Your task to perform on an android device: turn pop-ups off in chrome Image 0: 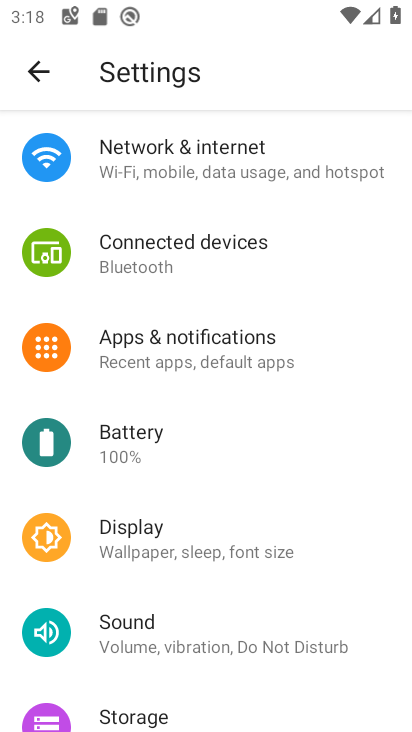
Step 0: drag from (188, 661) to (272, 63)
Your task to perform on an android device: turn pop-ups off in chrome Image 1: 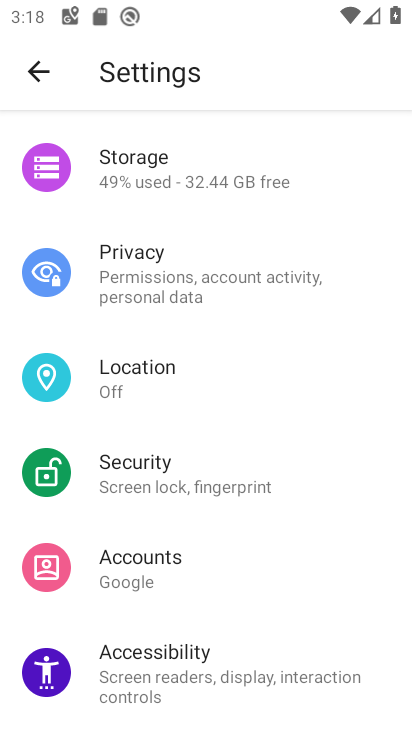
Step 1: drag from (227, 667) to (226, 524)
Your task to perform on an android device: turn pop-ups off in chrome Image 2: 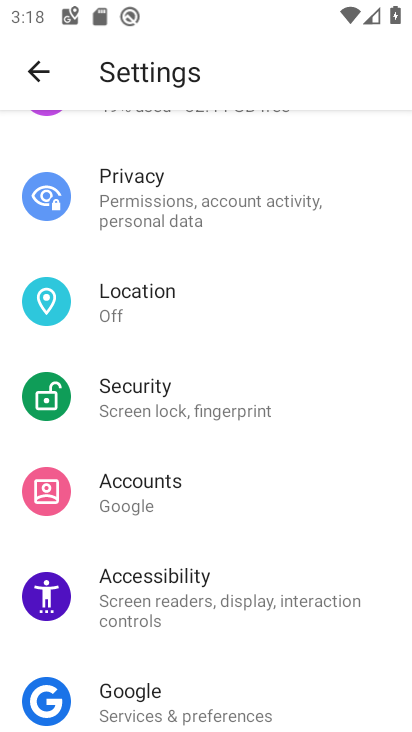
Step 2: press home button
Your task to perform on an android device: turn pop-ups off in chrome Image 3: 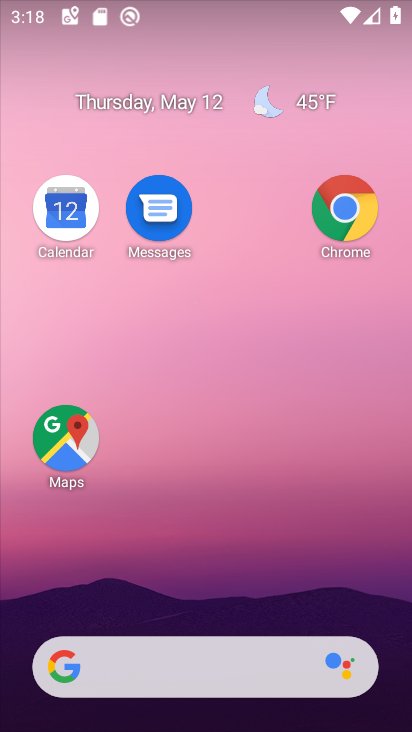
Step 3: click (356, 225)
Your task to perform on an android device: turn pop-ups off in chrome Image 4: 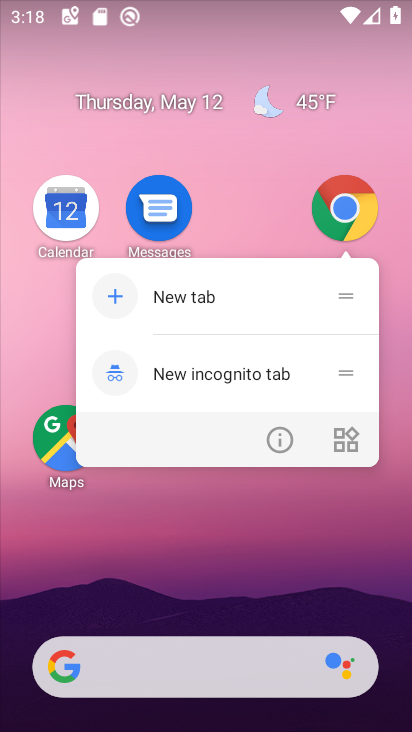
Step 4: click (284, 435)
Your task to perform on an android device: turn pop-ups off in chrome Image 5: 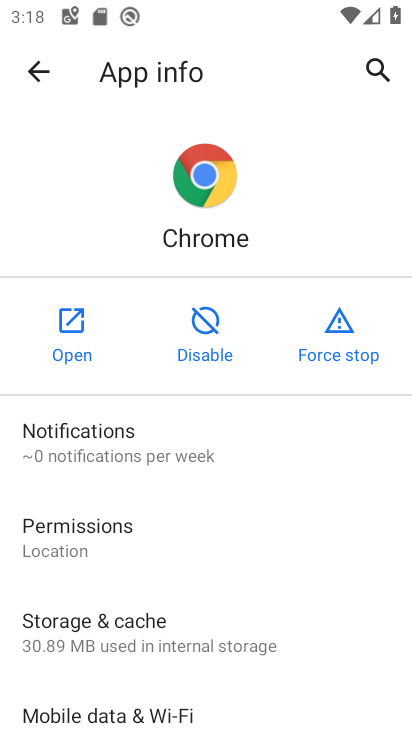
Step 5: click (90, 340)
Your task to perform on an android device: turn pop-ups off in chrome Image 6: 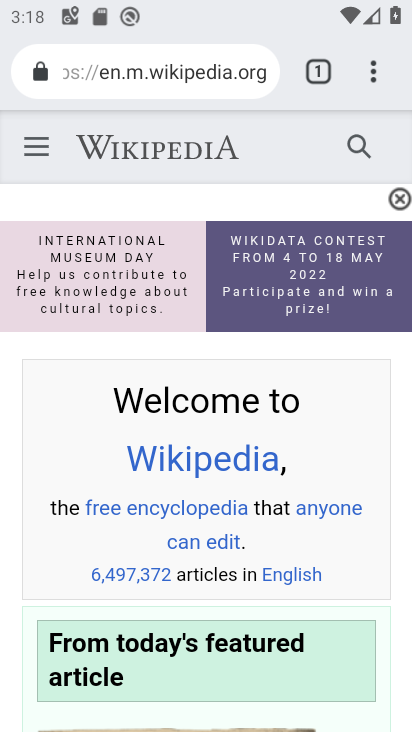
Step 6: drag from (376, 68) to (173, 570)
Your task to perform on an android device: turn pop-ups off in chrome Image 7: 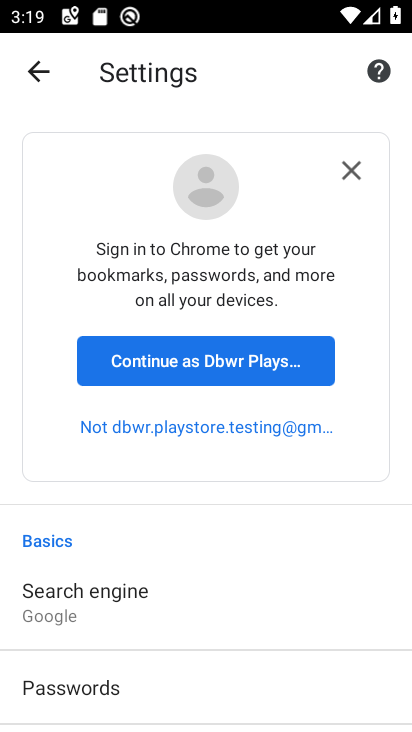
Step 7: drag from (198, 602) to (211, 394)
Your task to perform on an android device: turn pop-ups off in chrome Image 8: 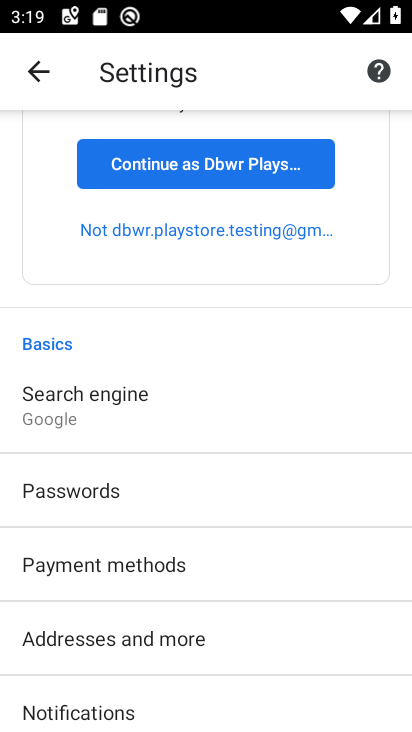
Step 8: drag from (201, 657) to (253, 387)
Your task to perform on an android device: turn pop-ups off in chrome Image 9: 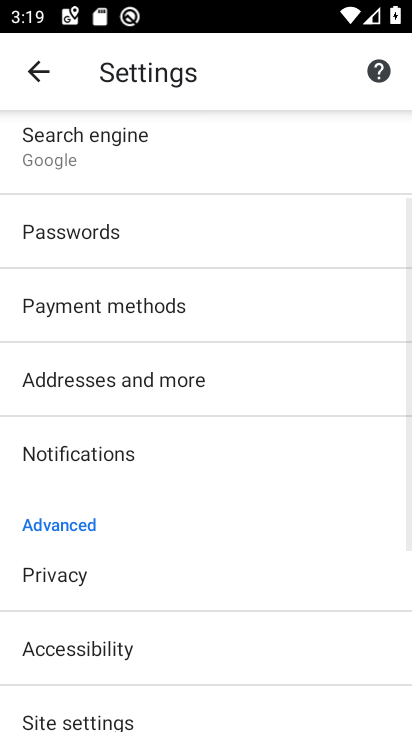
Step 9: drag from (177, 613) to (212, 429)
Your task to perform on an android device: turn pop-ups off in chrome Image 10: 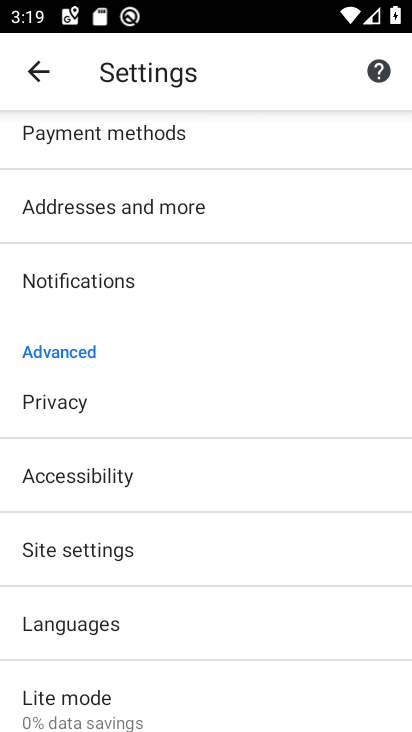
Step 10: click (129, 553)
Your task to perform on an android device: turn pop-ups off in chrome Image 11: 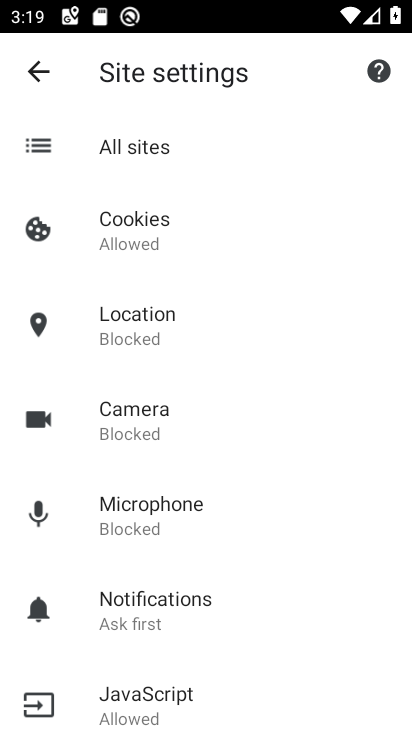
Step 11: drag from (174, 647) to (253, 344)
Your task to perform on an android device: turn pop-ups off in chrome Image 12: 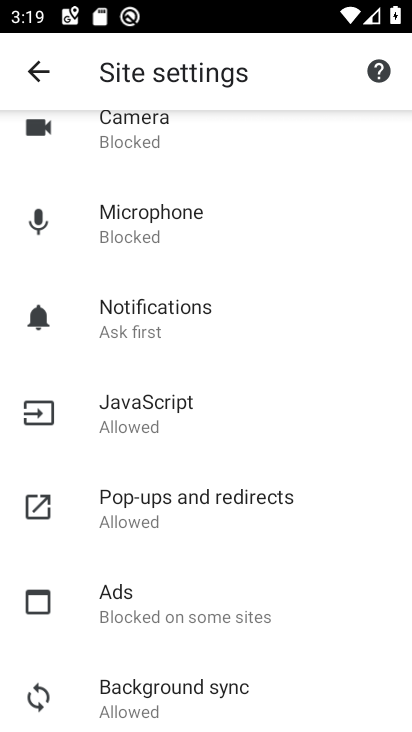
Step 12: click (184, 526)
Your task to perform on an android device: turn pop-ups off in chrome Image 13: 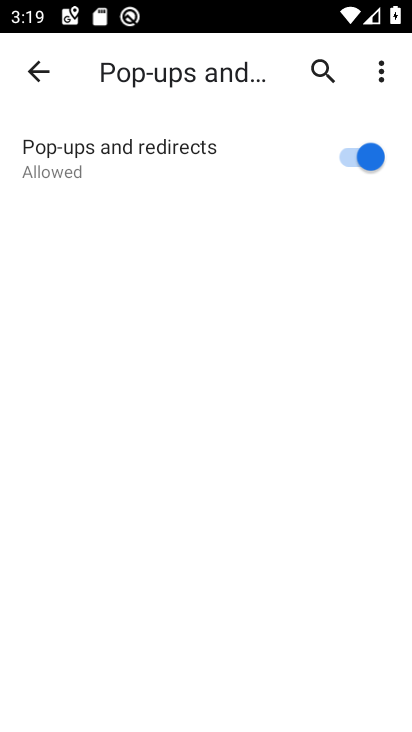
Step 13: drag from (187, 623) to (253, 329)
Your task to perform on an android device: turn pop-ups off in chrome Image 14: 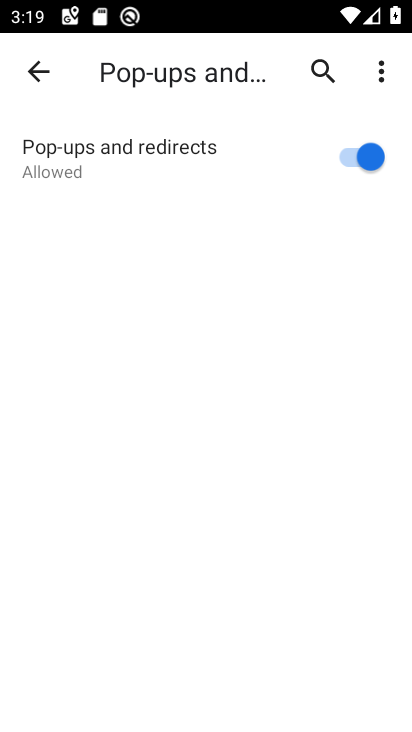
Step 14: drag from (173, 592) to (229, 363)
Your task to perform on an android device: turn pop-ups off in chrome Image 15: 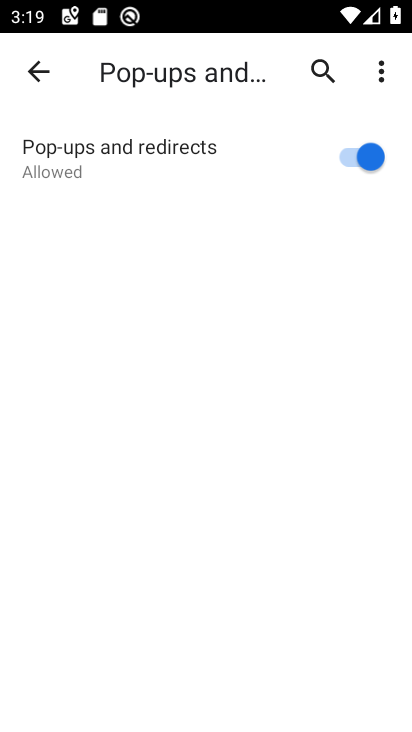
Step 15: click (367, 145)
Your task to perform on an android device: turn pop-ups off in chrome Image 16: 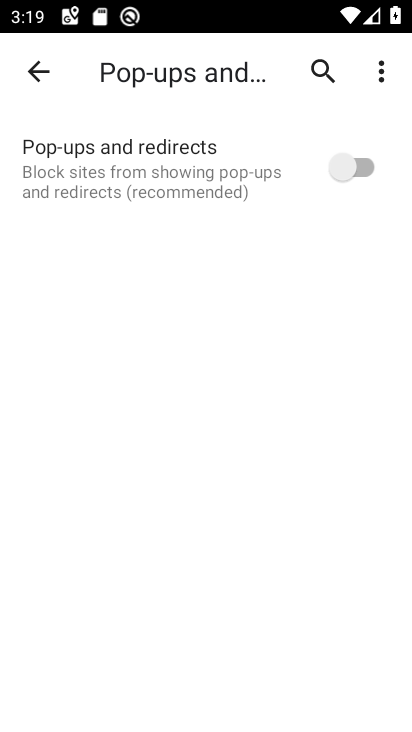
Step 16: task complete